Your task to perform on an android device: set the timer Image 0: 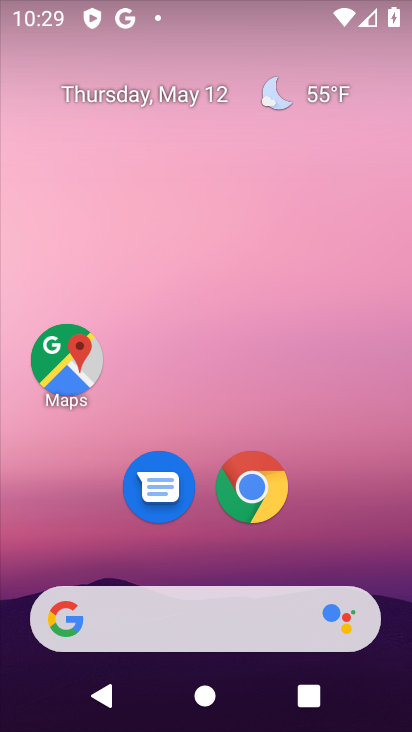
Step 0: drag from (355, 576) to (345, 25)
Your task to perform on an android device: set the timer Image 1: 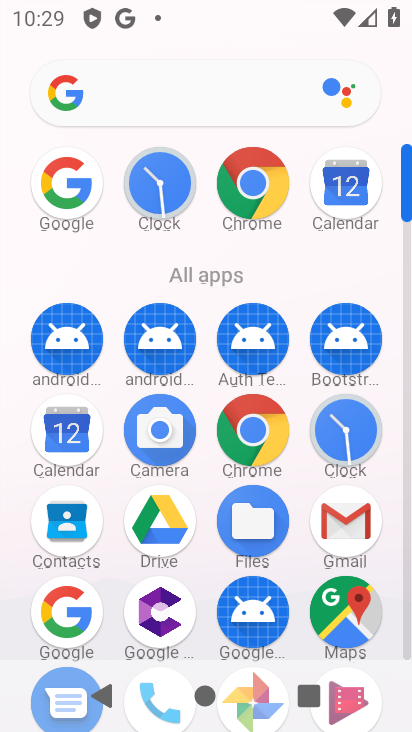
Step 1: click (168, 191)
Your task to perform on an android device: set the timer Image 2: 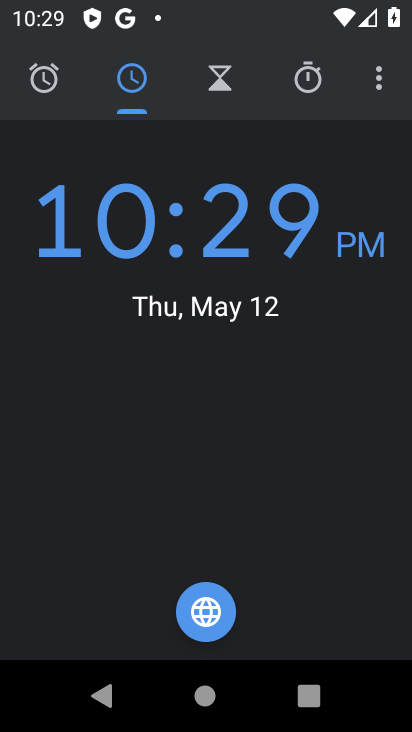
Step 2: click (222, 88)
Your task to perform on an android device: set the timer Image 3: 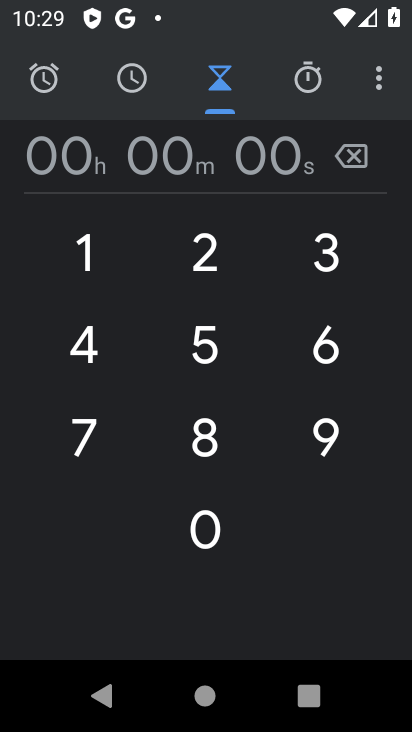
Step 3: click (212, 349)
Your task to perform on an android device: set the timer Image 4: 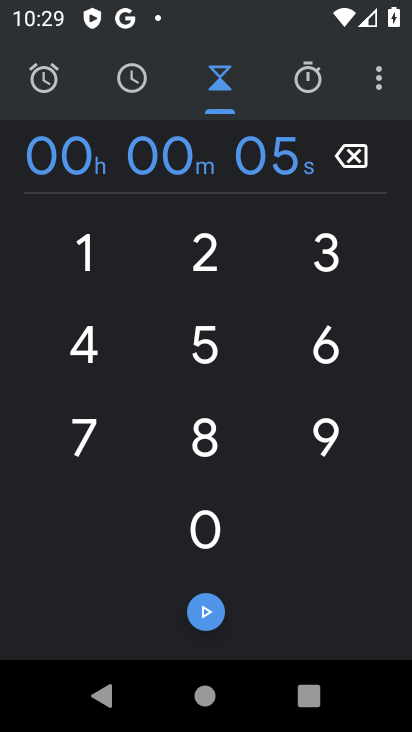
Step 4: click (196, 519)
Your task to perform on an android device: set the timer Image 5: 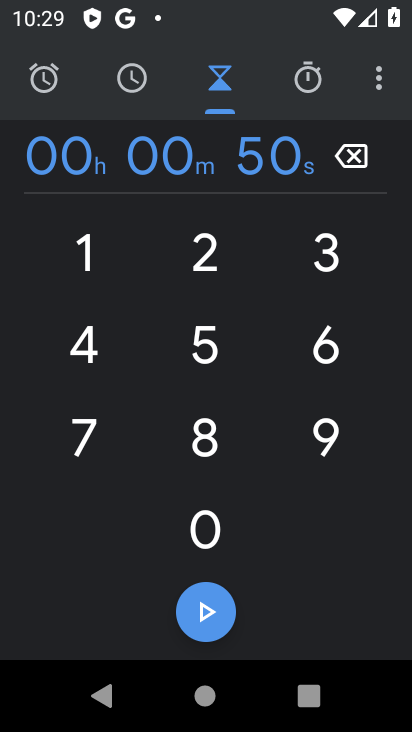
Step 5: task complete